Your task to perform on an android device: When is my next meeting? Image 0: 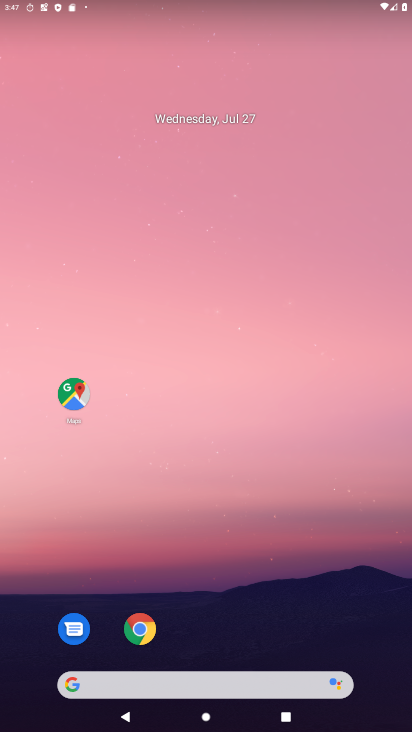
Step 0: drag from (266, 645) to (278, 68)
Your task to perform on an android device: When is my next meeting? Image 1: 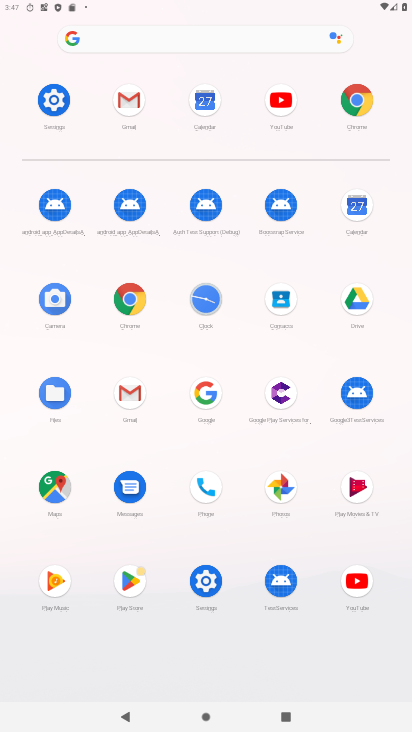
Step 1: click (209, 107)
Your task to perform on an android device: When is my next meeting? Image 2: 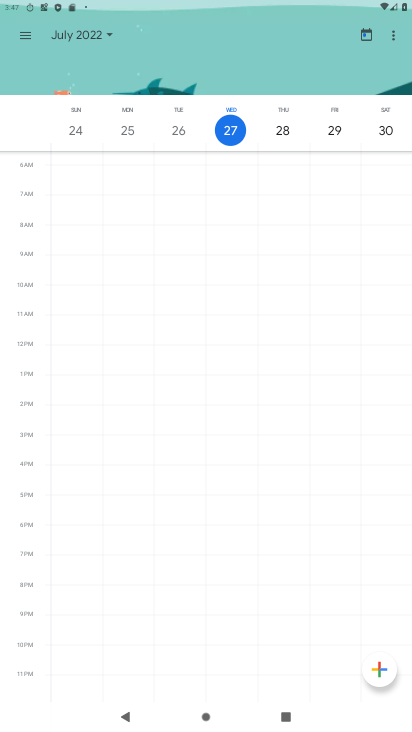
Step 2: task complete